Your task to perform on an android device: Google the capital of Brazil Image 0: 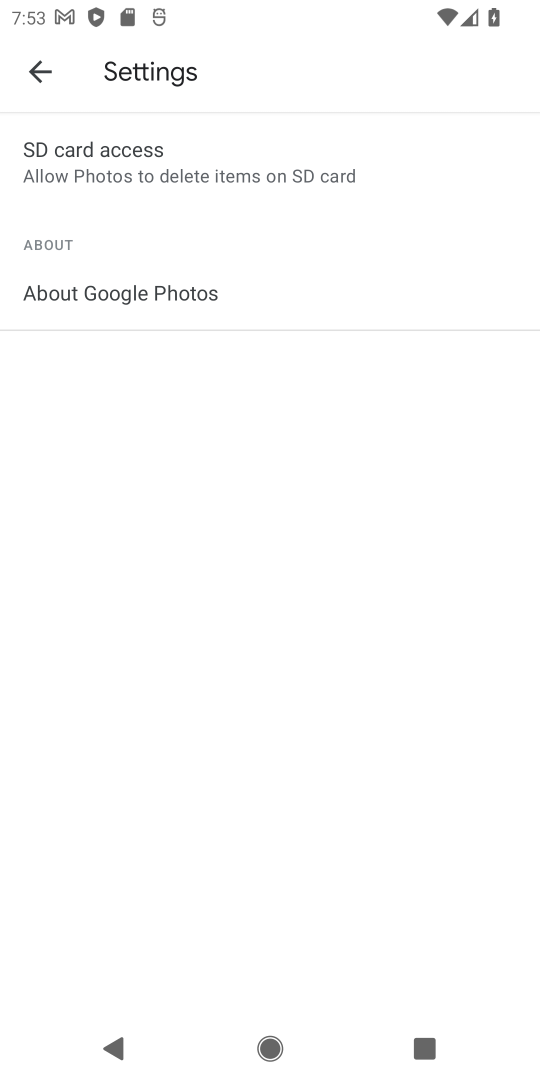
Step 0: press home button
Your task to perform on an android device: Google the capital of Brazil Image 1: 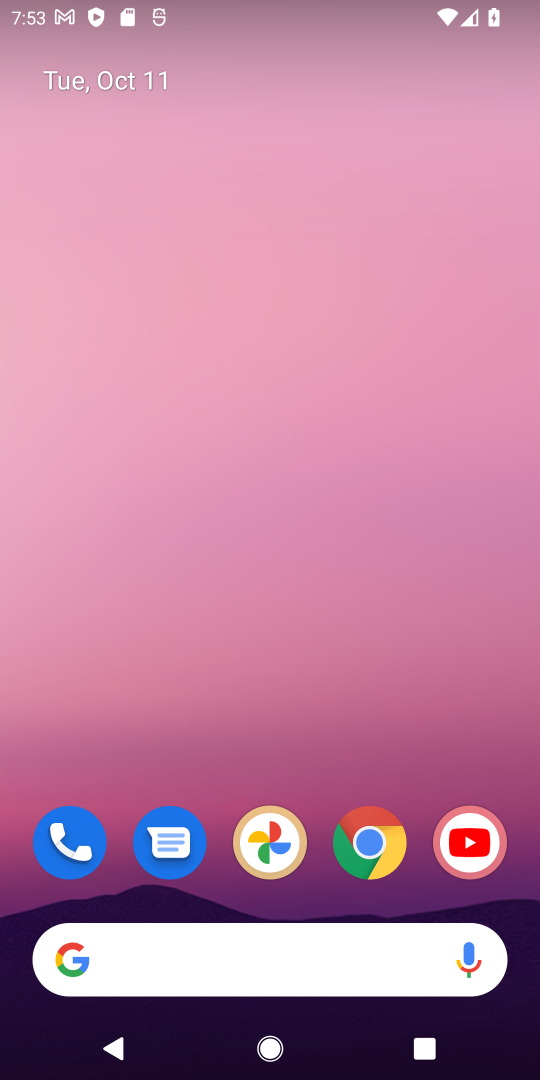
Step 1: click (394, 846)
Your task to perform on an android device: Google the capital of Brazil Image 2: 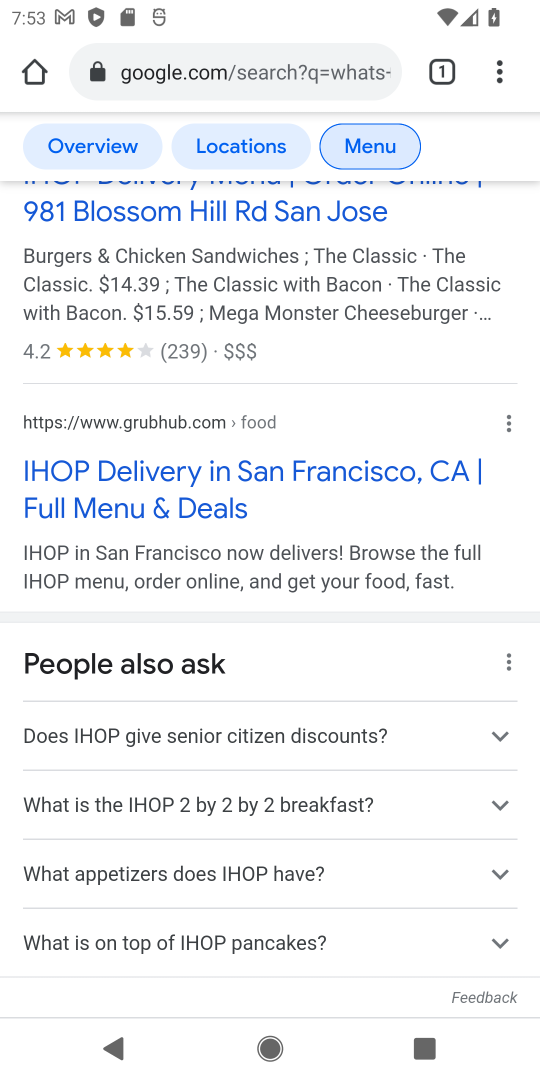
Step 2: click (218, 69)
Your task to perform on an android device: Google the capital of Brazil Image 3: 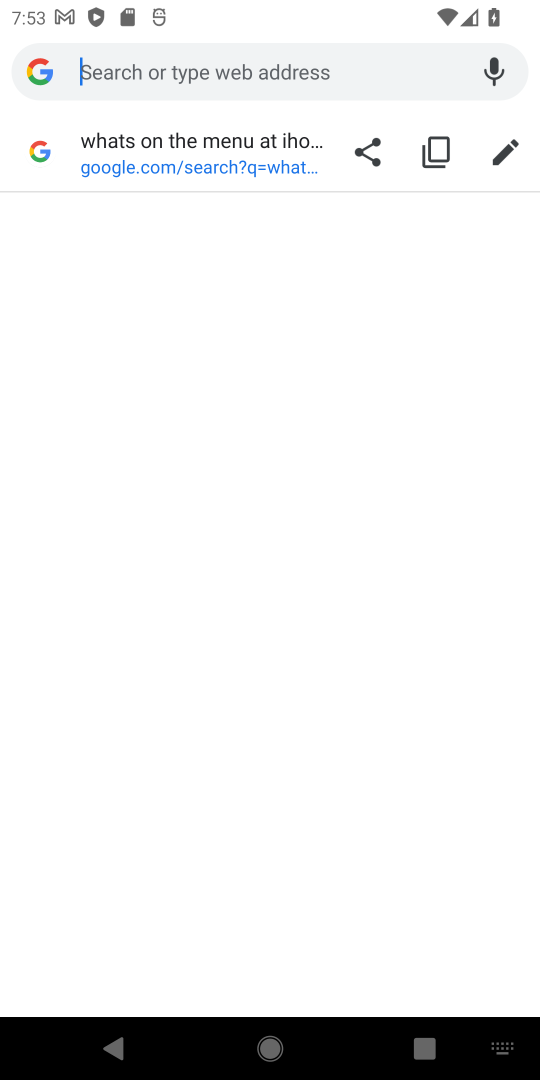
Step 3: type "capital of bazar"
Your task to perform on an android device: Google the capital of Brazil Image 4: 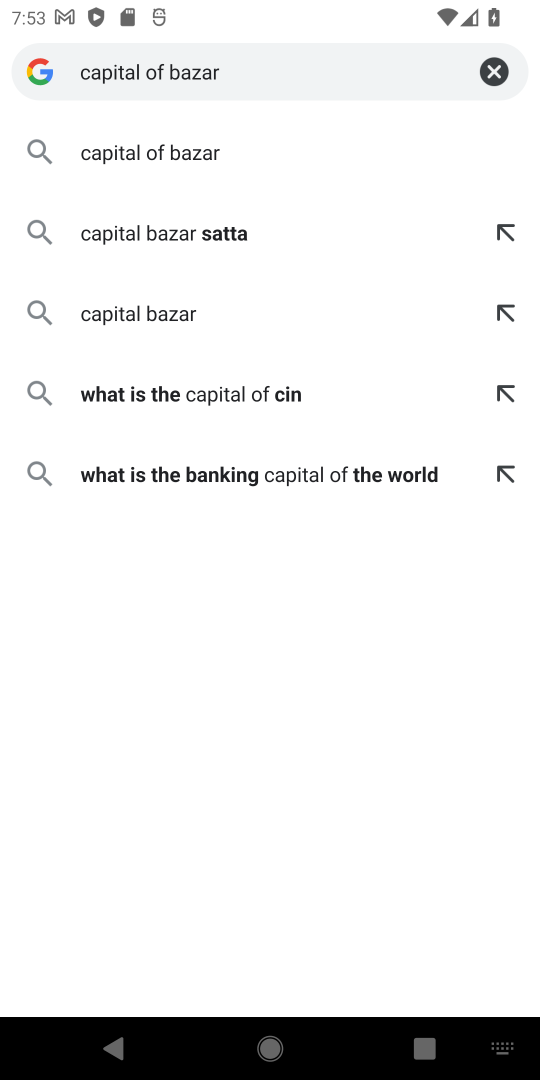
Step 4: click (301, 63)
Your task to perform on an android device: Google the capital of Brazil Image 5: 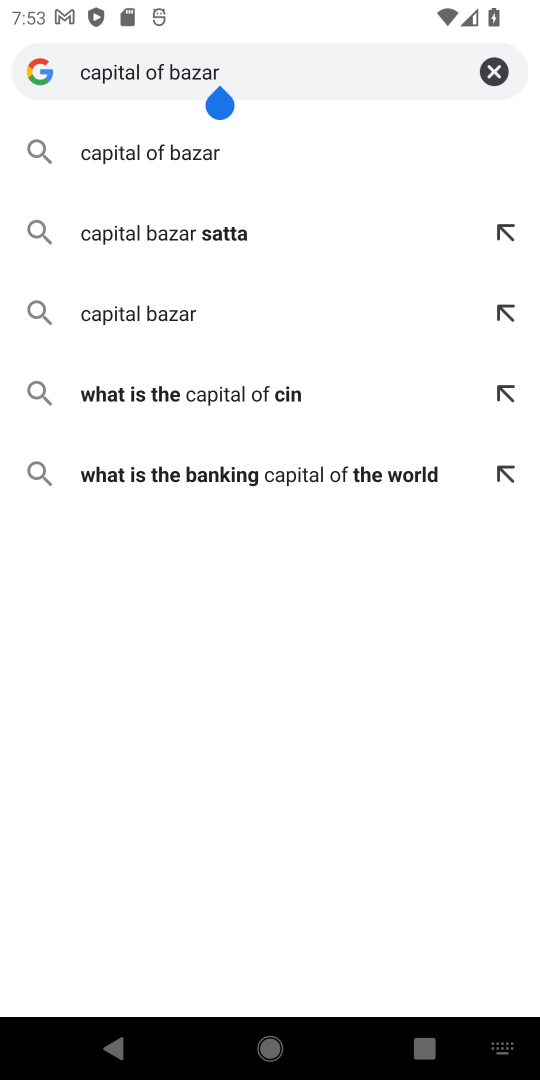
Step 5: click (225, 70)
Your task to perform on an android device: Google the capital of Brazil Image 6: 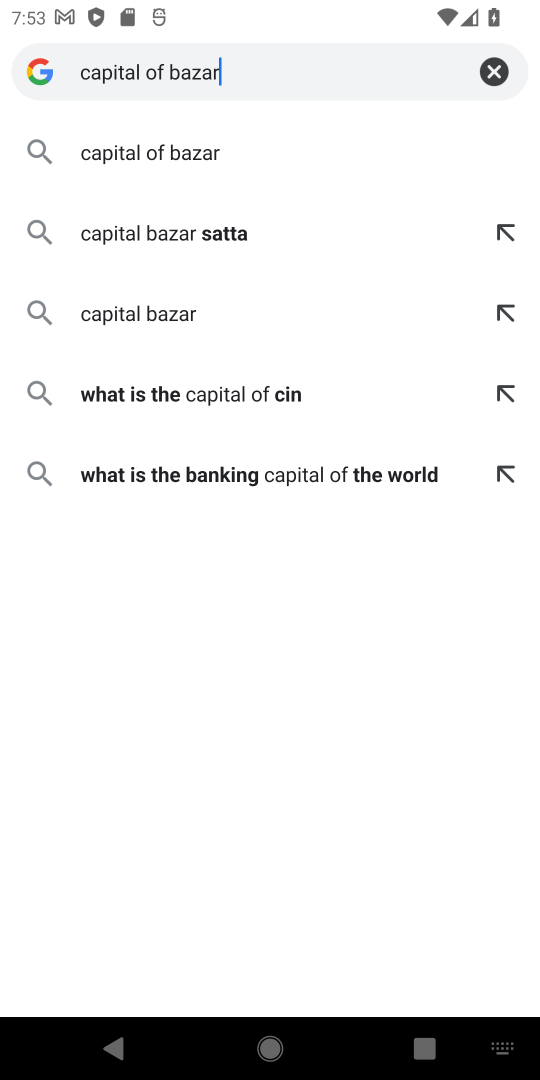
Step 6: type "capital of brazil"
Your task to perform on an android device: Google the capital of Brazil Image 7: 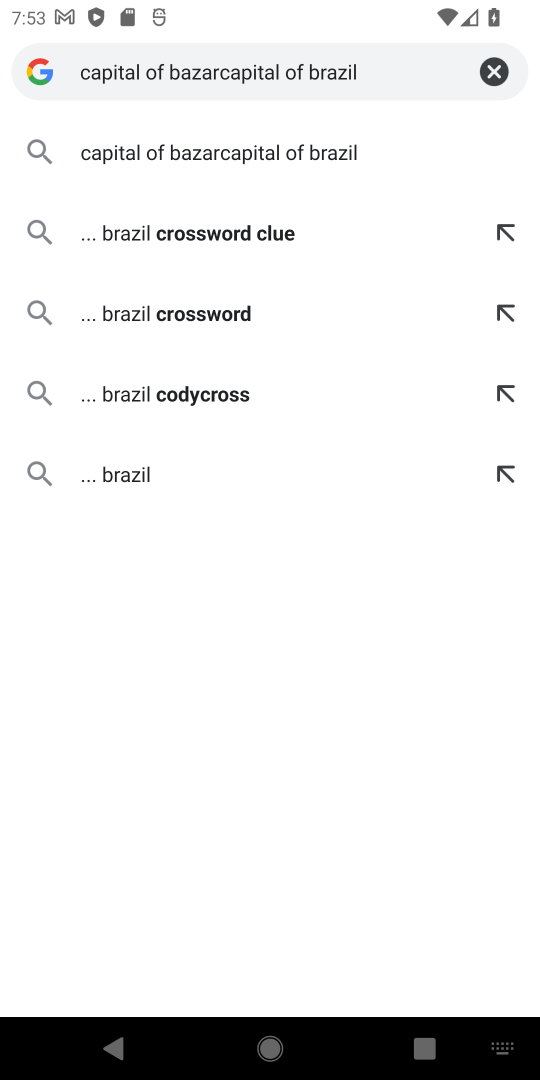
Step 7: click (198, 154)
Your task to perform on an android device: Google the capital of Brazil Image 8: 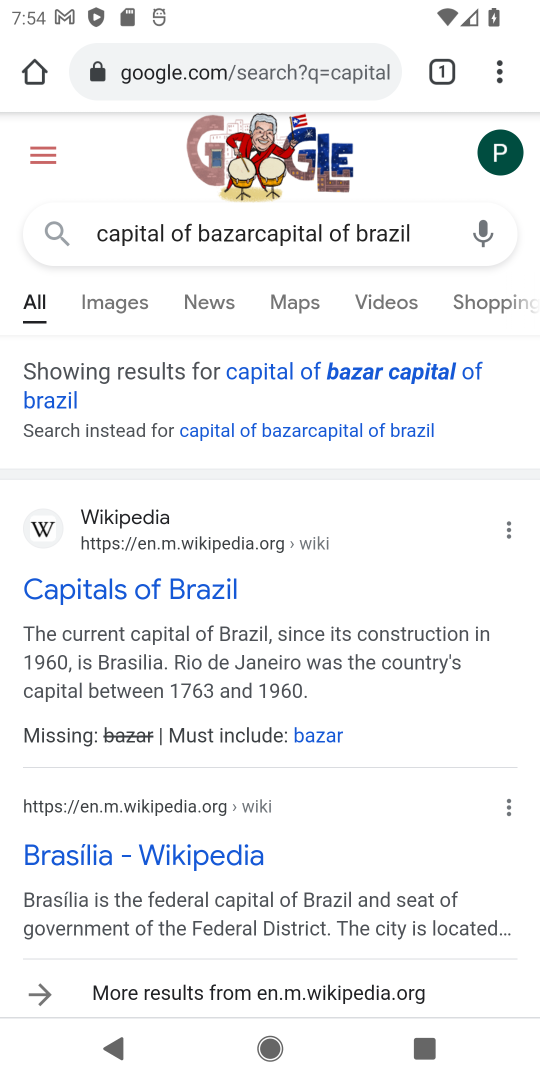
Step 8: click (92, 596)
Your task to perform on an android device: Google the capital of Brazil Image 9: 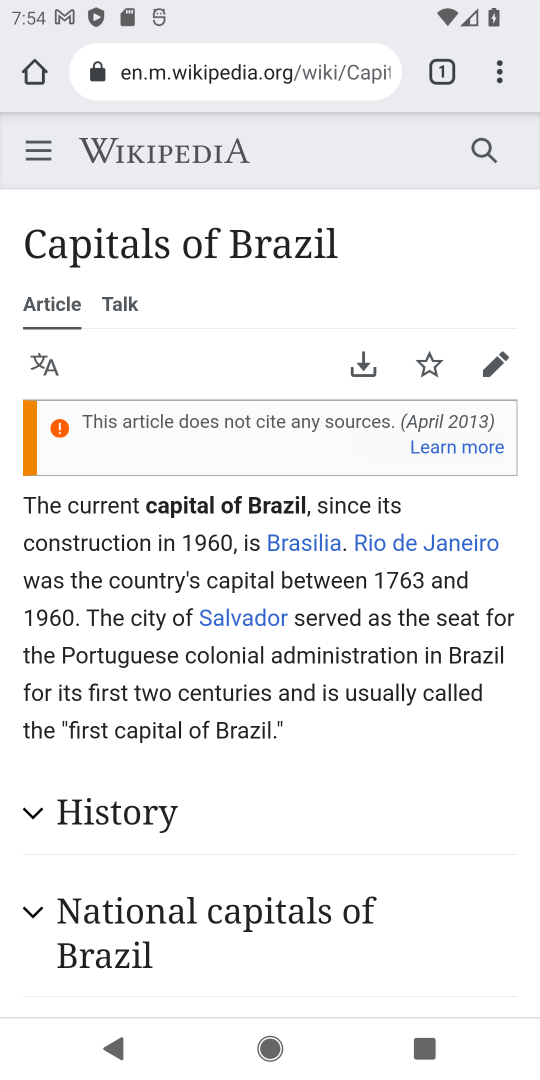
Step 9: task complete